Your task to perform on an android device: change the clock style Image 0: 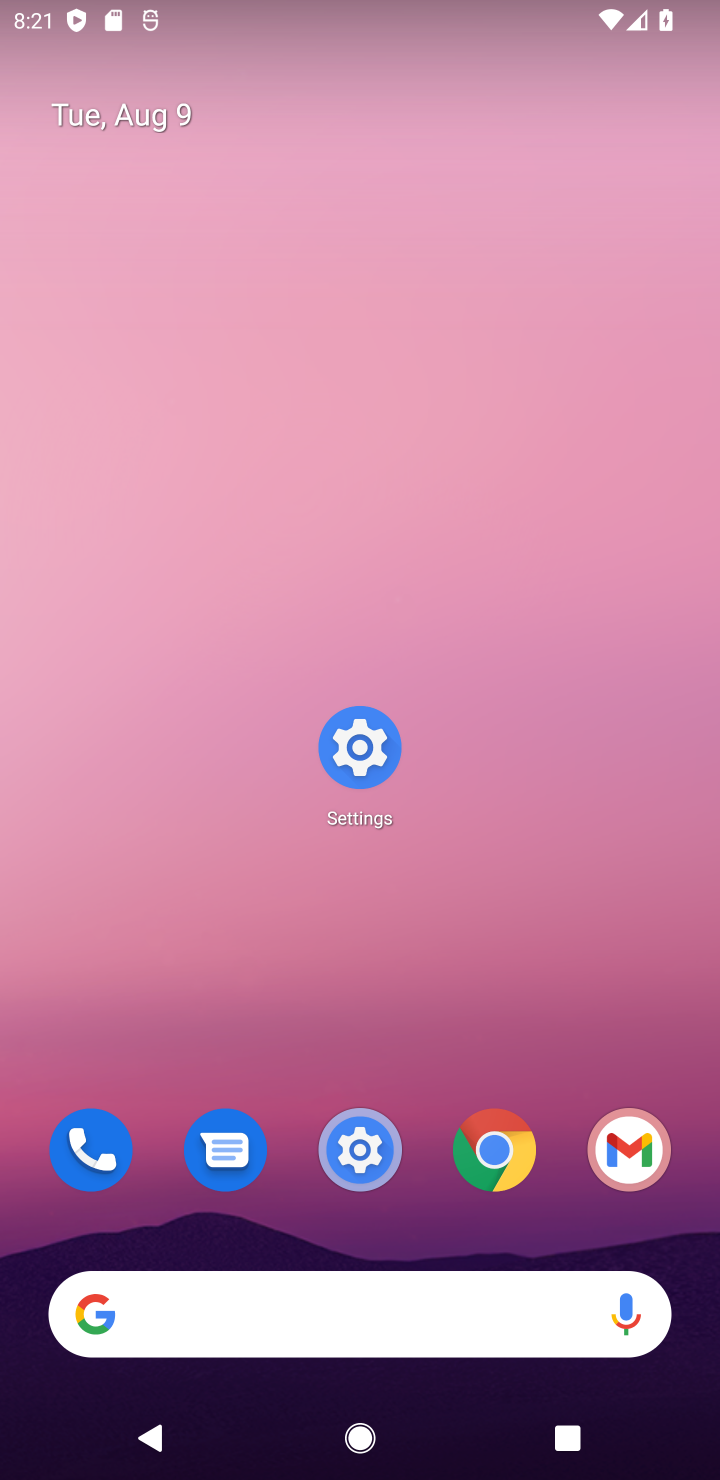
Step 0: drag from (488, 899) to (627, 213)
Your task to perform on an android device: change the clock style Image 1: 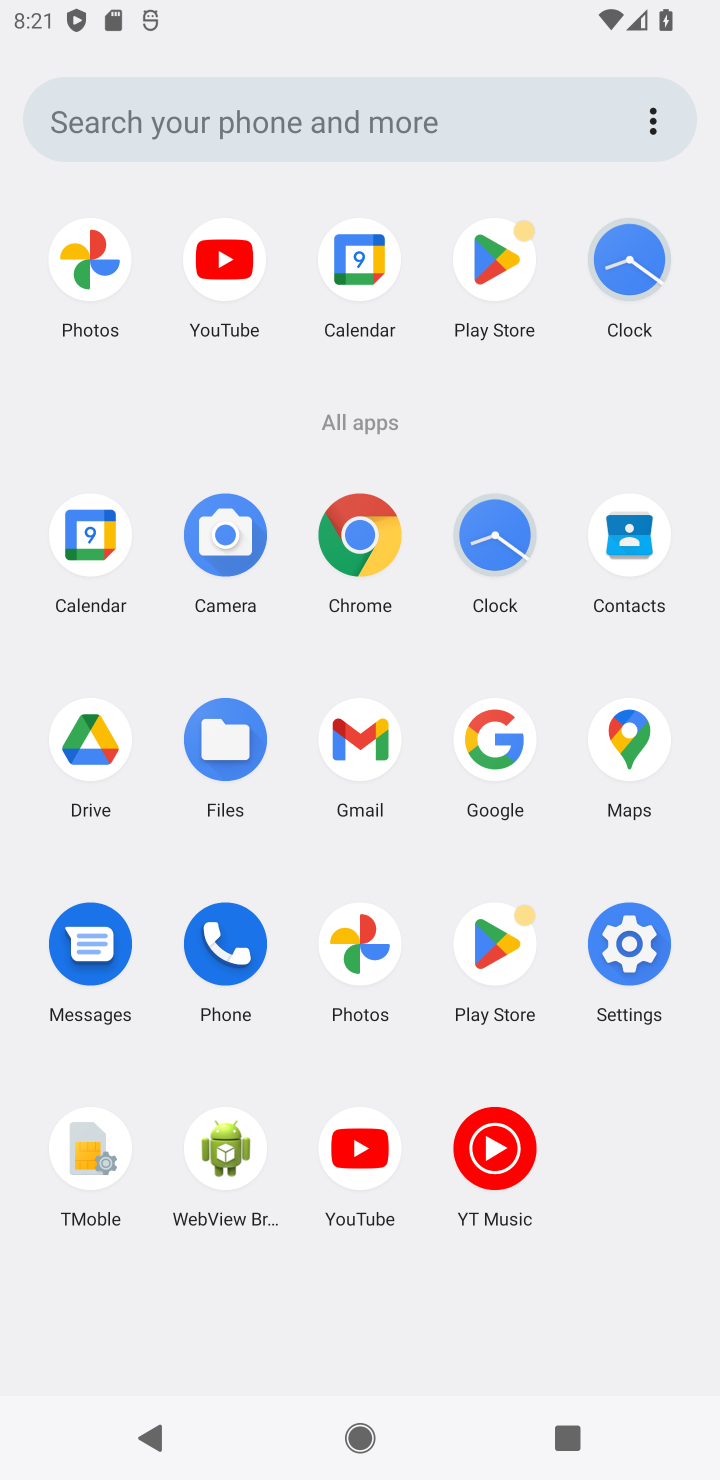
Step 1: click (502, 532)
Your task to perform on an android device: change the clock style Image 2: 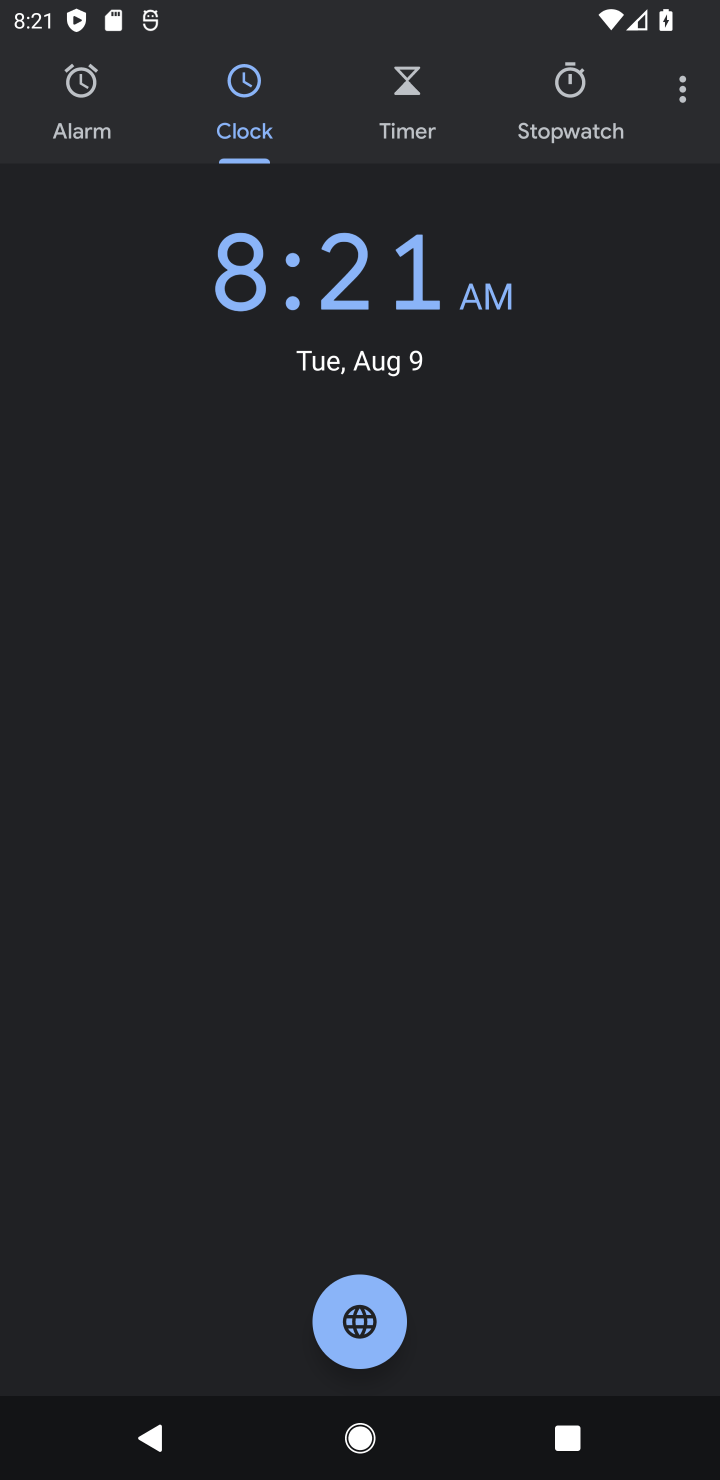
Step 2: click (689, 75)
Your task to perform on an android device: change the clock style Image 3: 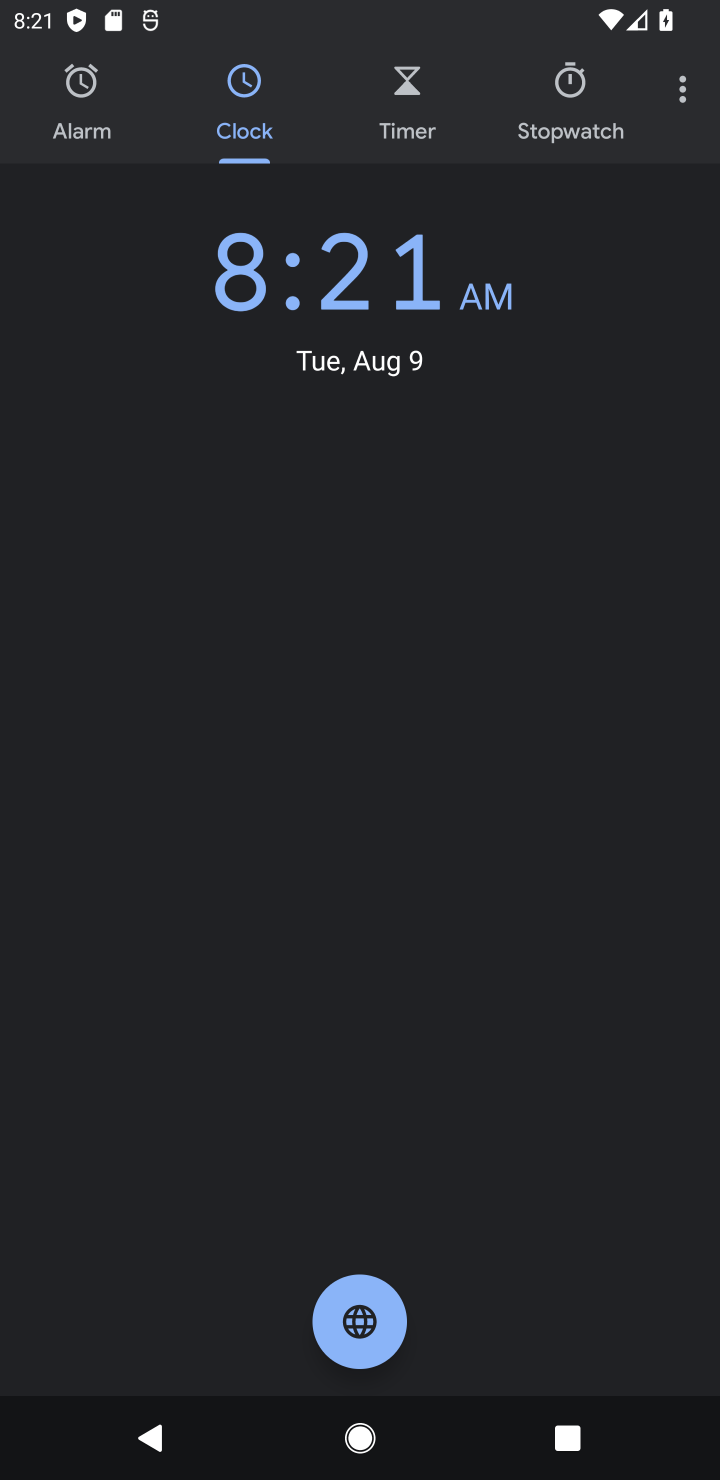
Step 3: click (681, 107)
Your task to perform on an android device: change the clock style Image 4: 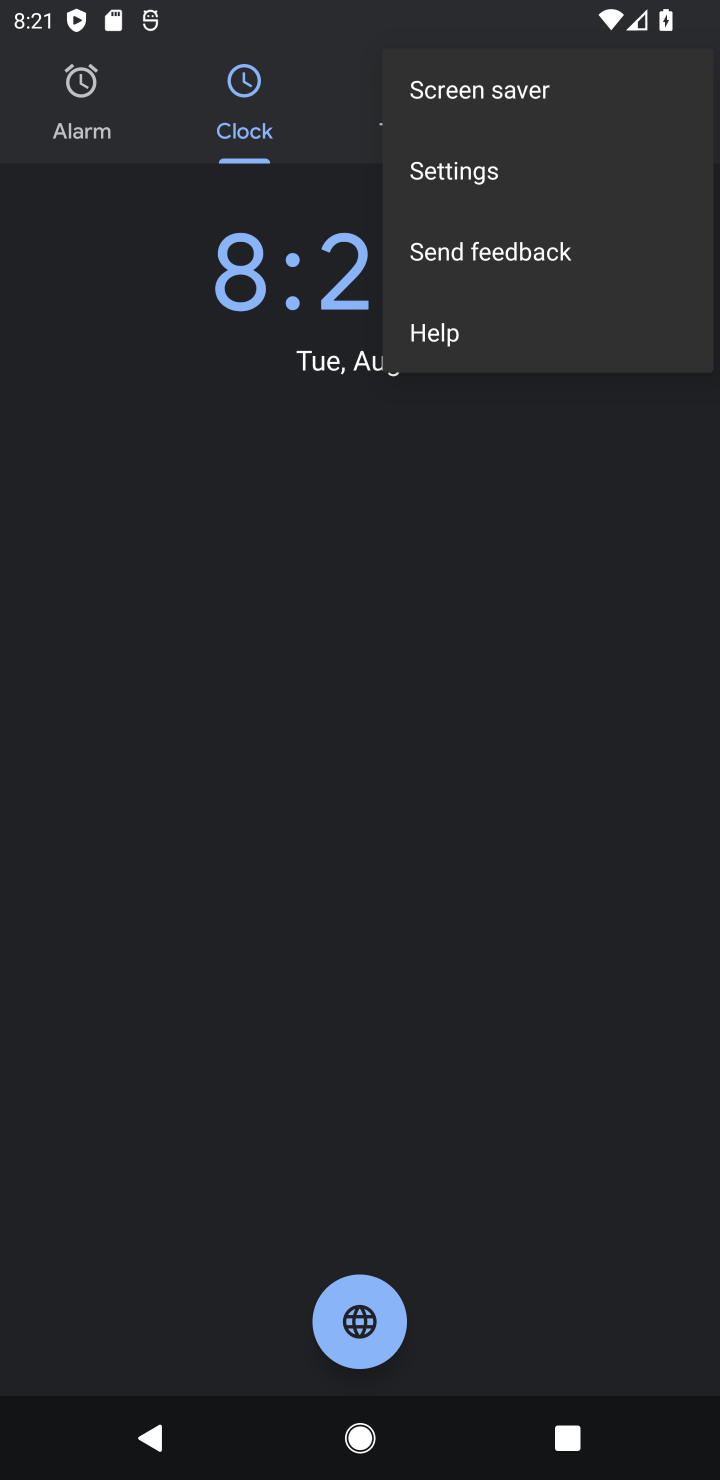
Step 4: click (484, 179)
Your task to perform on an android device: change the clock style Image 5: 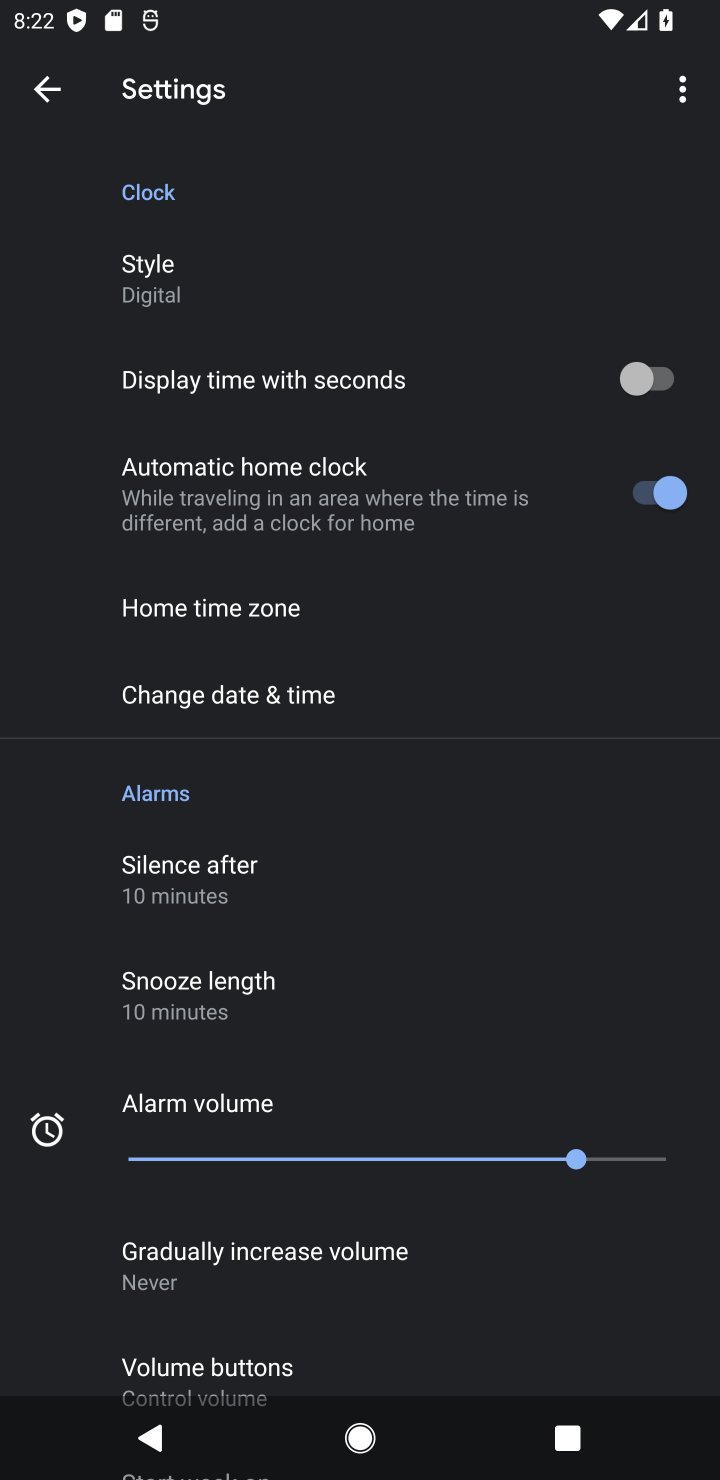
Step 5: click (162, 299)
Your task to perform on an android device: change the clock style Image 6: 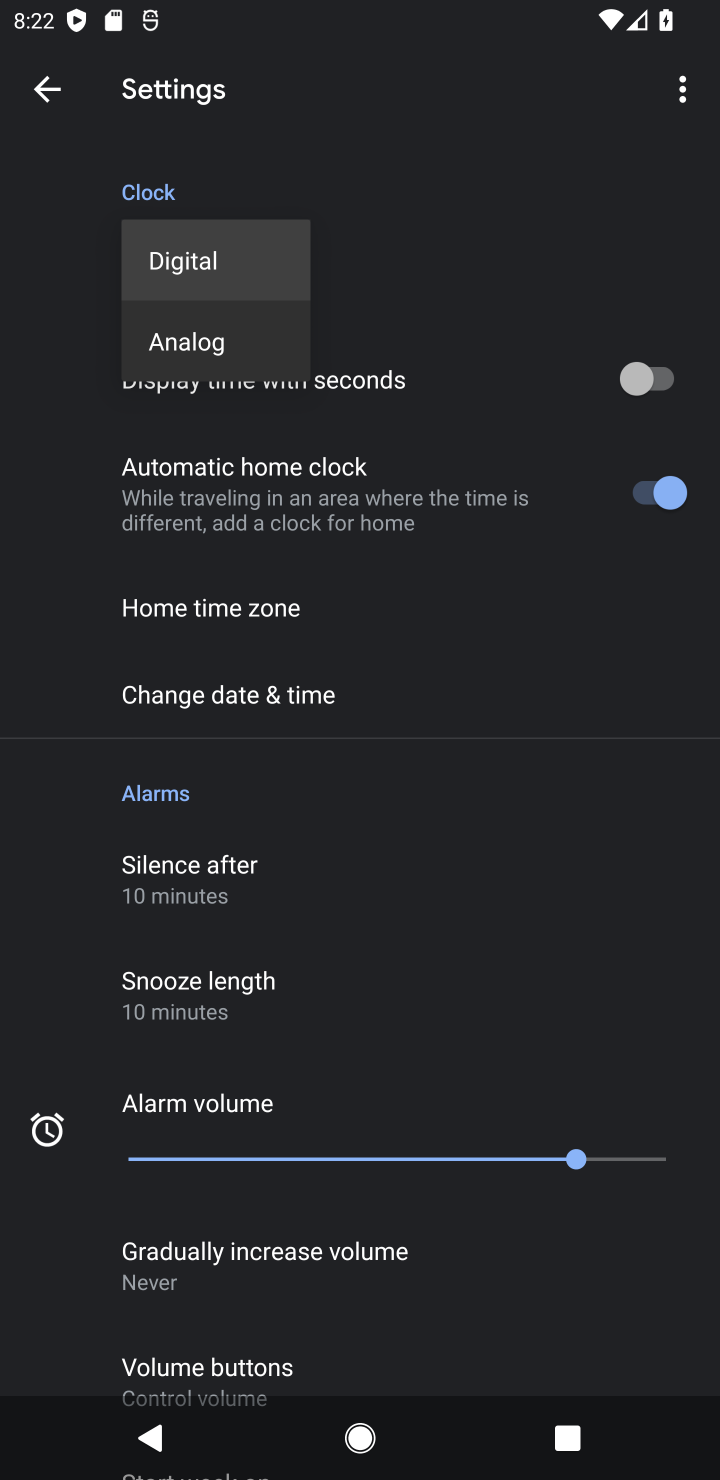
Step 6: click (220, 342)
Your task to perform on an android device: change the clock style Image 7: 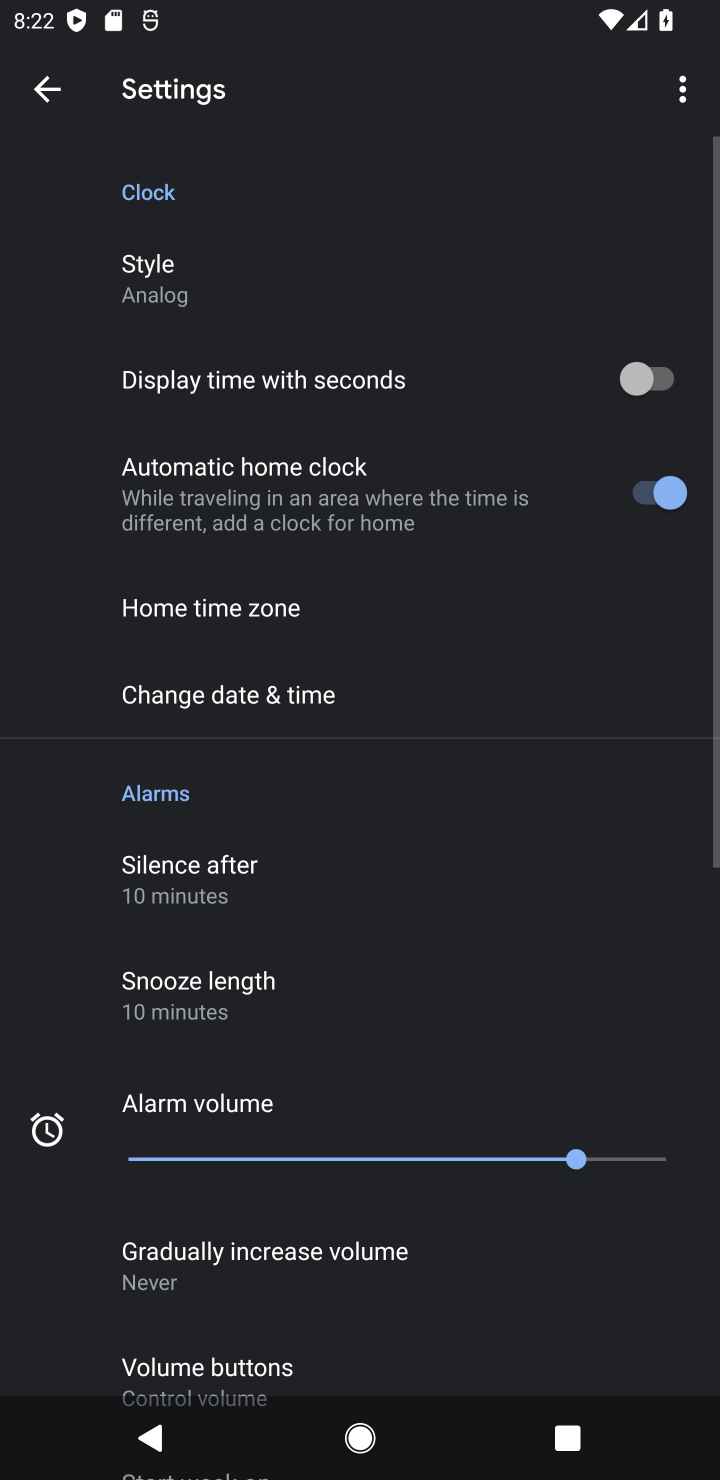
Step 7: task complete